Your task to perform on an android device: allow notifications from all sites in the chrome app Image 0: 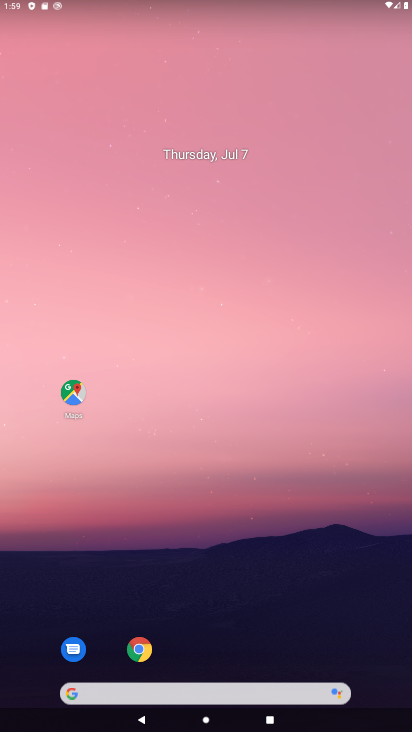
Step 0: drag from (308, 689) to (306, 221)
Your task to perform on an android device: allow notifications from all sites in the chrome app Image 1: 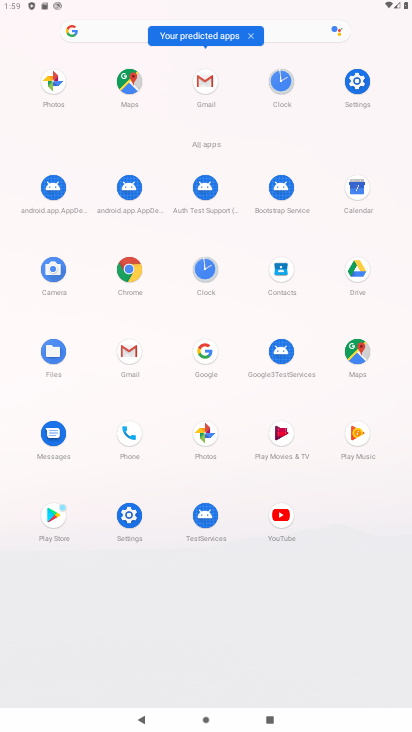
Step 1: click (144, 266)
Your task to perform on an android device: allow notifications from all sites in the chrome app Image 2: 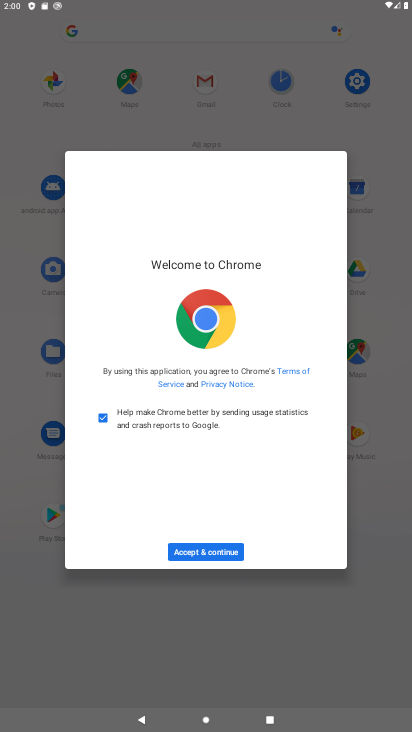
Step 2: click (220, 554)
Your task to perform on an android device: allow notifications from all sites in the chrome app Image 3: 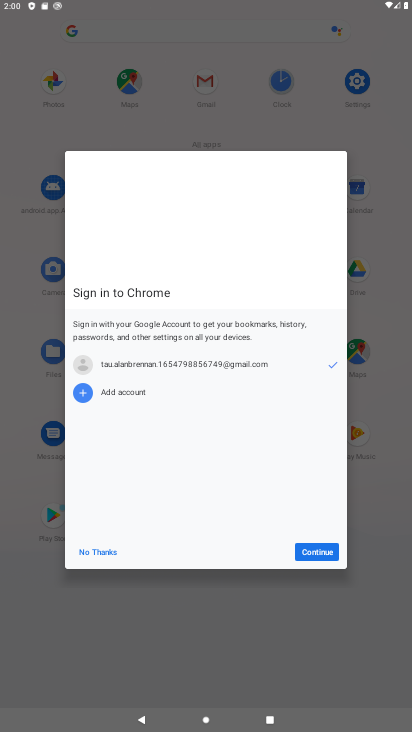
Step 3: click (108, 551)
Your task to perform on an android device: allow notifications from all sites in the chrome app Image 4: 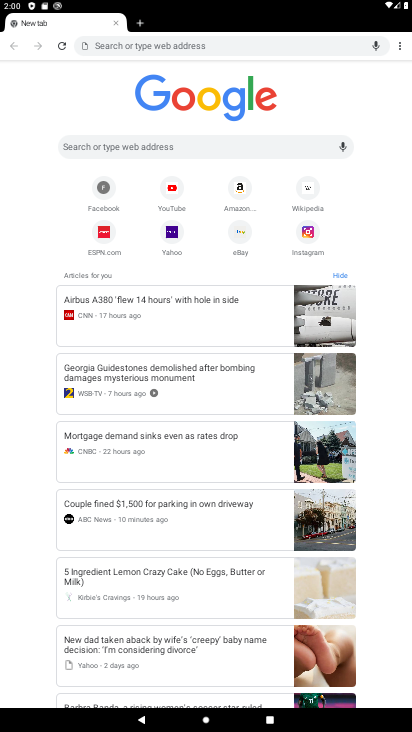
Step 4: click (399, 48)
Your task to perform on an android device: allow notifications from all sites in the chrome app Image 5: 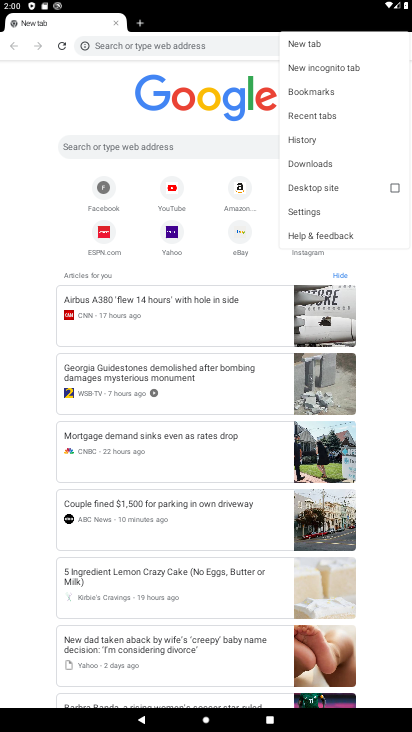
Step 5: click (319, 211)
Your task to perform on an android device: allow notifications from all sites in the chrome app Image 6: 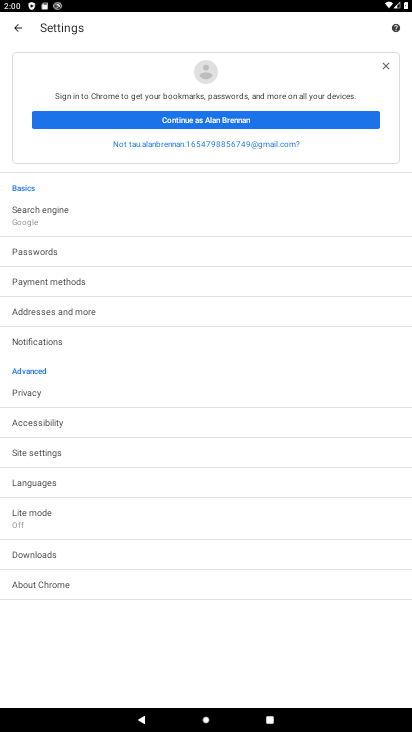
Step 6: click (73, 457)
Your task to perform on an android device: allow notifications from all sites in the chrome app Image 7: 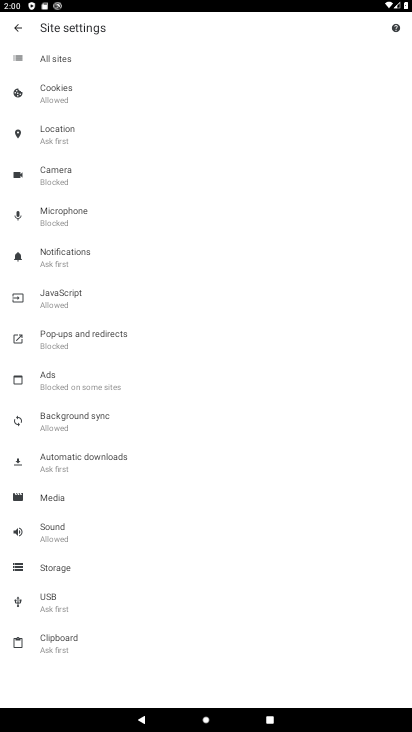
Step 7: click (85, 260)
Your task to perform on an android device: allow notifications from all sites in the chrome app Image 8: 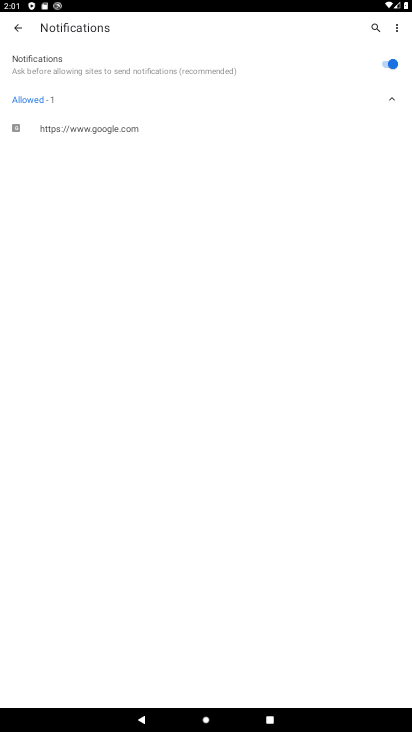
Step 8: task complete